Your task to perform on an android device: Open Chrome and go to settings Image 0: 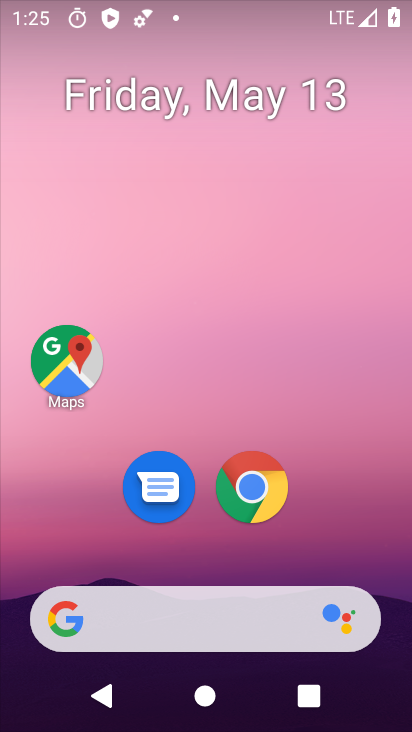
Step 0: drag from (338, 553) to (339, 148)
Your task to perform on an android device: Open Chrome and go to settings Image 1: 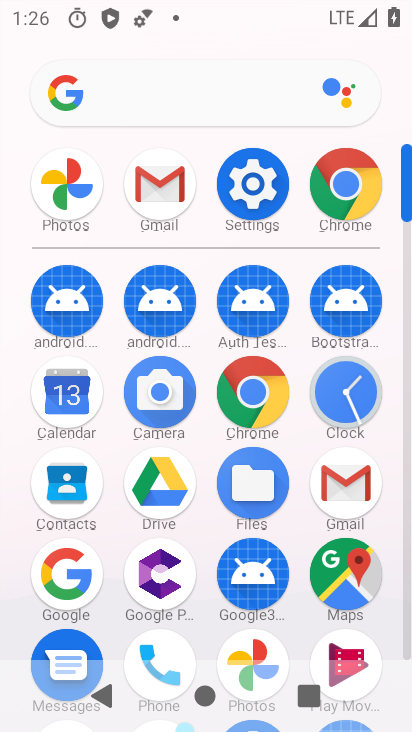
Step 1: click (260, 391)
Your task to perform on an android device: Open Chrome and go to settings Image 2: 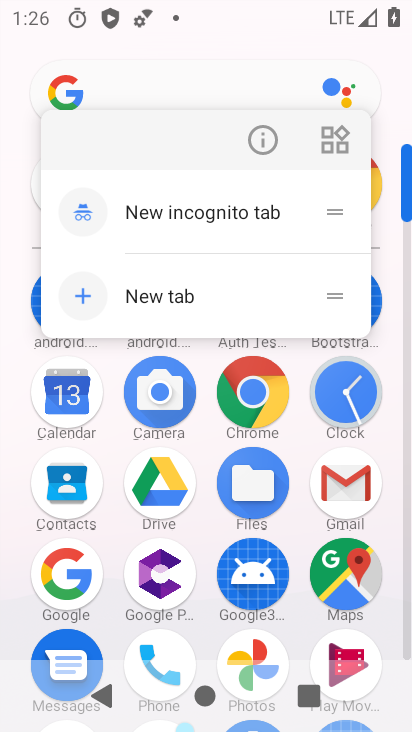
Step 2: click (263, 417)
Your task to perform on an android device: Open Chrome and go to settings Image 3: 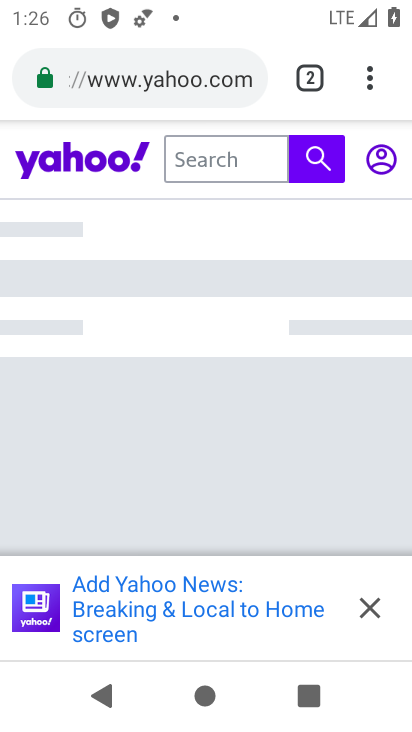
Step 3: task complete